Your task to perform on an android device: turn off priority inbox in the gmail app Image 0: 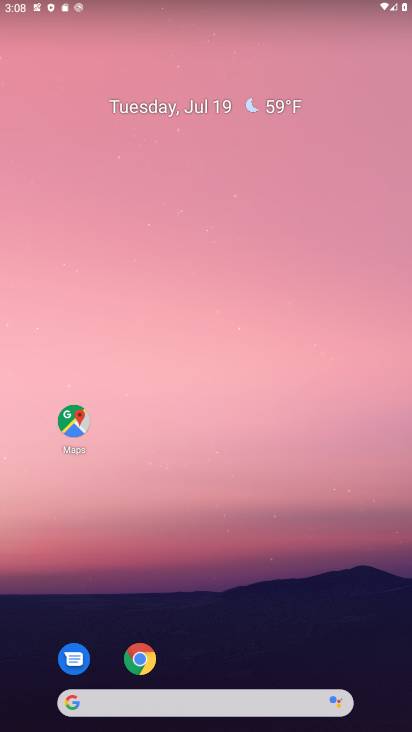
Step 0: drag from (189, 696) to (236, 145)
Your task to perform on an android device: turn off priority inbox in the gmail app Image 1: 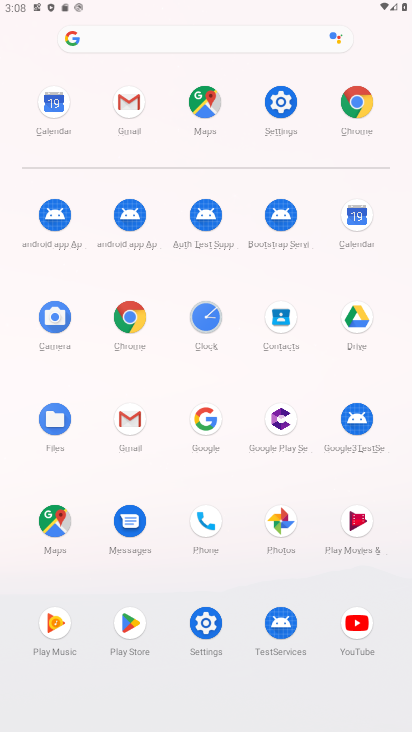
Step 1: click (130, 98)
Your task to perform on an android device: turn off priority inbox in the gmail app Image 2: 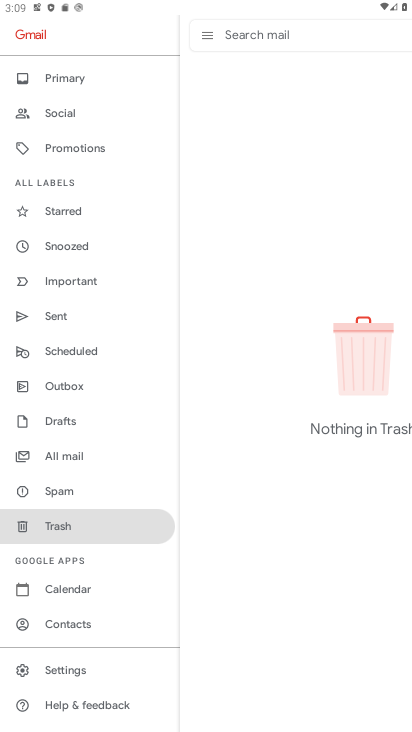
Step 2: click (69, 667)
Your task to perform on an android device: turn off priority inbox in the gmail app Image 3: 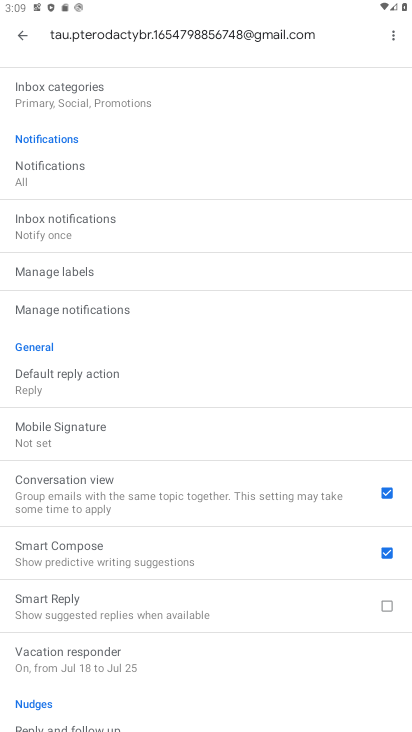
Step 3: drag from (88, 675) to (85, 585)
Your task to perform on an android device: turn off priority inbox in the gmail app Image 4: 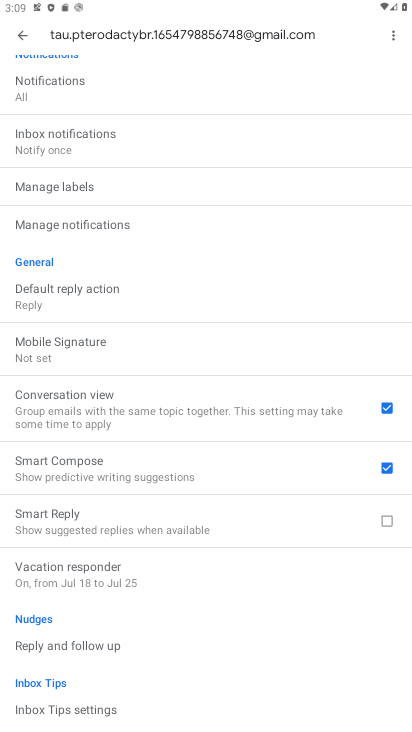
Step 4: drag from (62, 113) to (78, 286)
Your task to perform on an android device: turn off priority inbox in the gmail app Image 5: 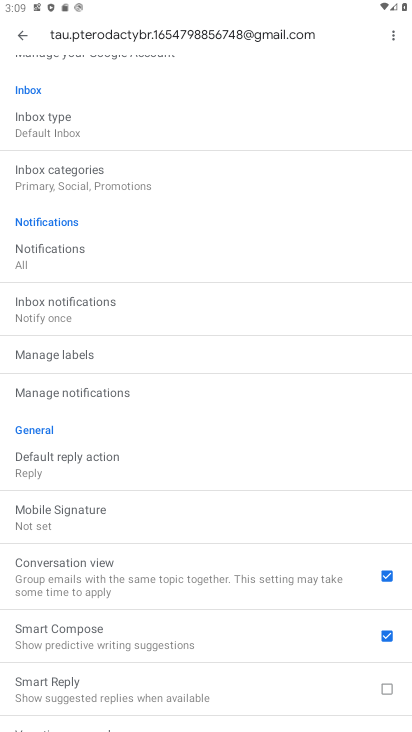
Step 5: click (59, 137)
Your task to perform on an android device: turn off priority inbox in the gmail app Image 6: 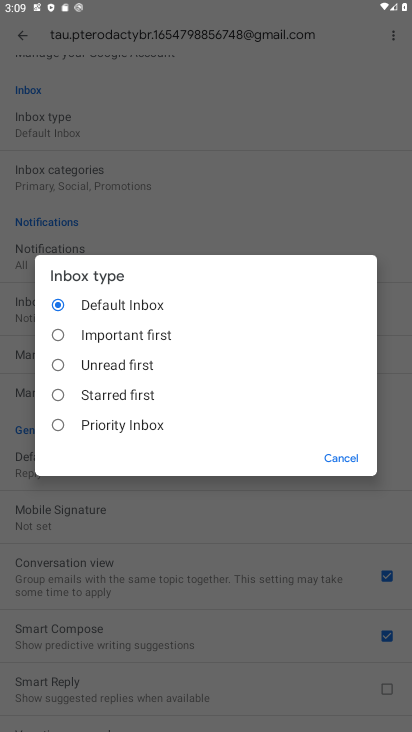
Step 6: click (110, 308)
Your task to perform on an android device: turn off priority inbox in the gmail app Image 7: 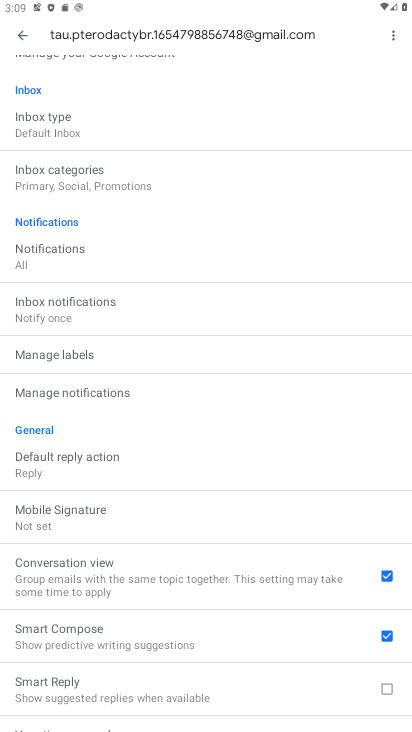
Step 7: task complete